Your task to perform on an android device: open app "Chime – Mobile Banking" (install if not already installed) Image 0: 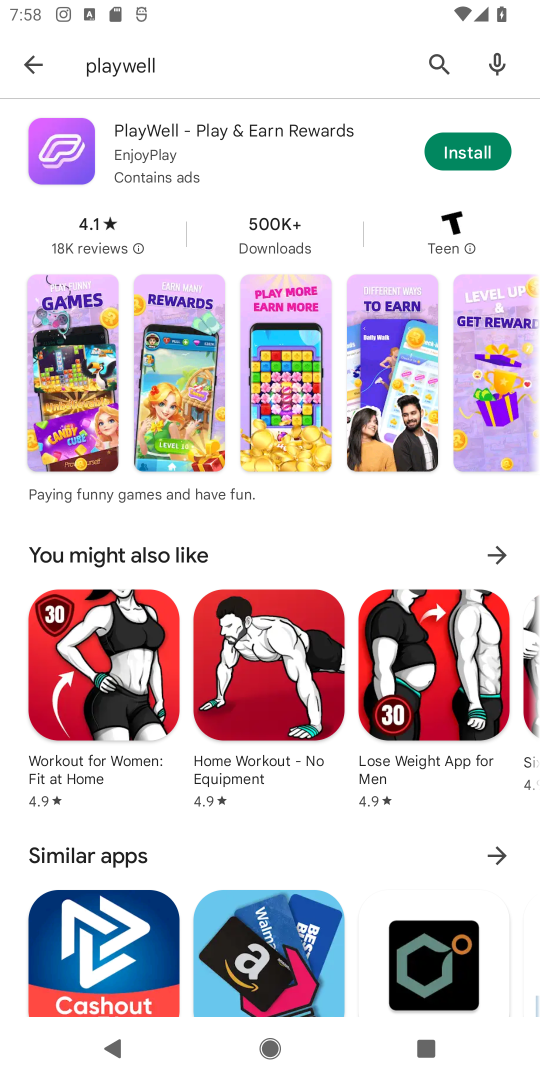
Step 0: click (300, 1051)
Your task to perform on an android device: open app "Chime – Mobile Banking" (install if not already installed) Image 1: 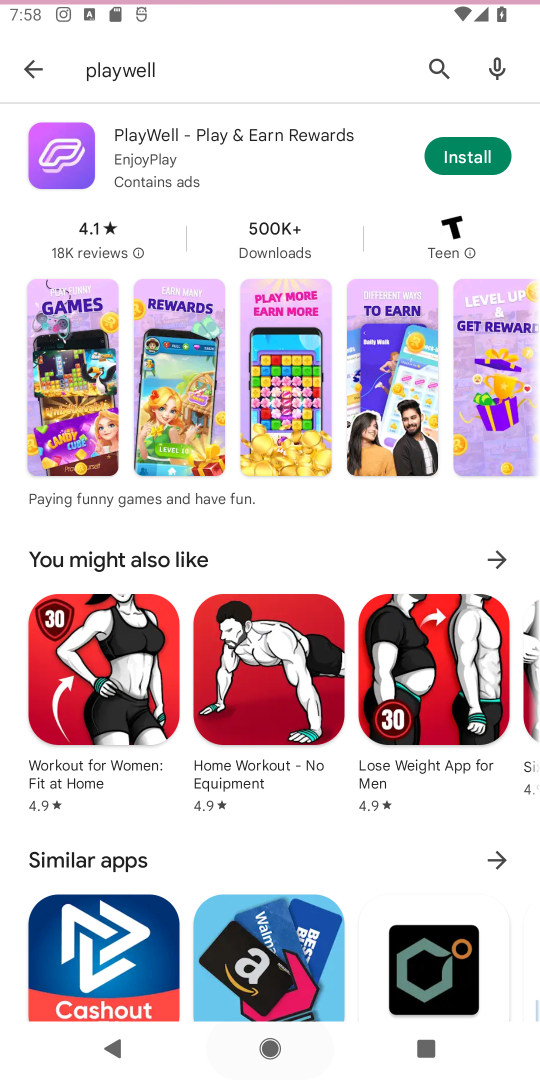
Step 1: click (436, 59)
Your task to perform on an android device: open app "Chime – Mobile Banking" (install if not already installed) Image 2: 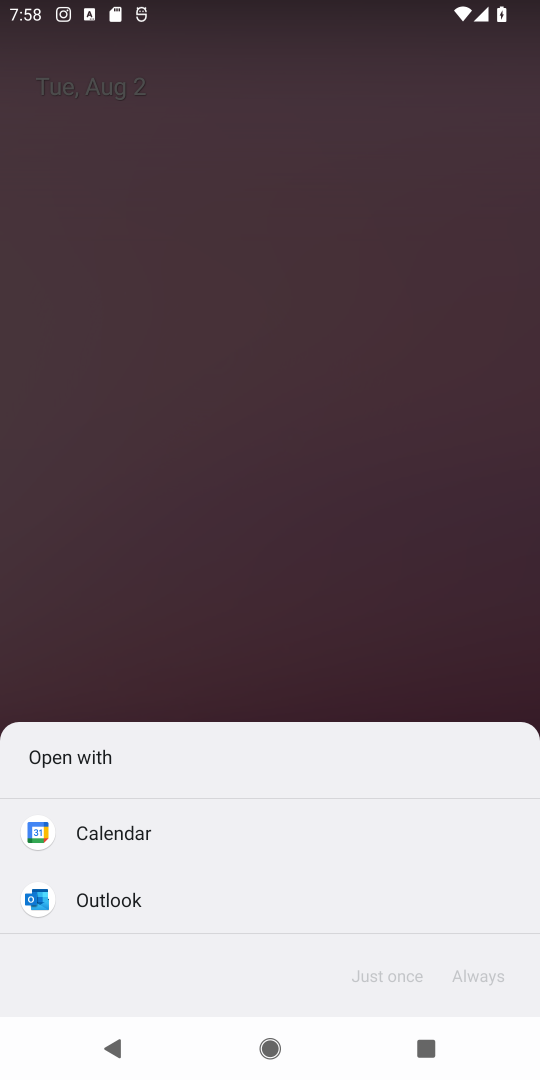
Step 2: click (211, 567)
Your task to perform on an android device: open app "Chime – Mobile Banking" (install if not already installed) Image 3: 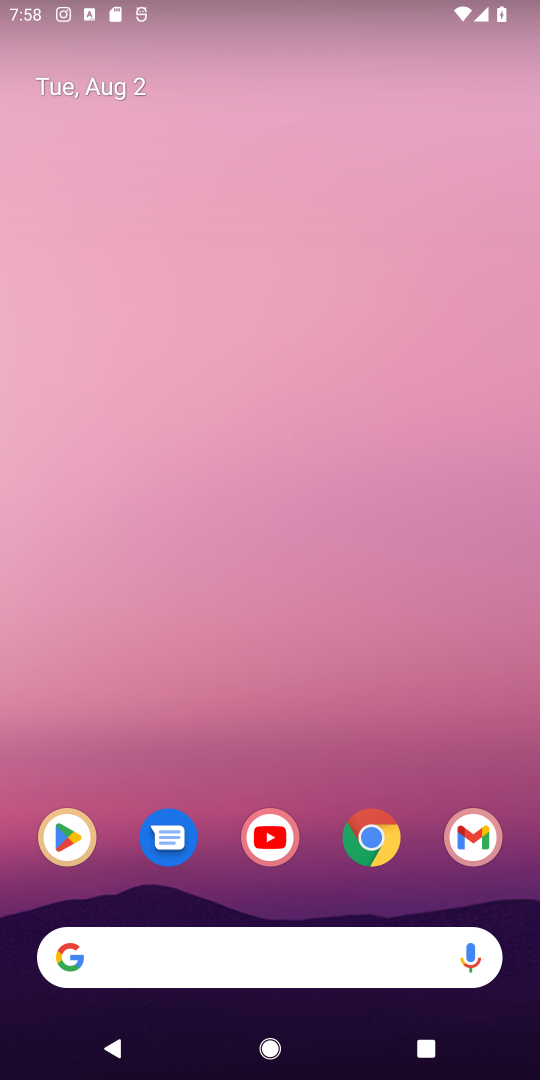
Step 3: click (78, 843)
Your task to perform on an android device: open app "Chime – Mobile Banking" (install if not already installed) Image 4: 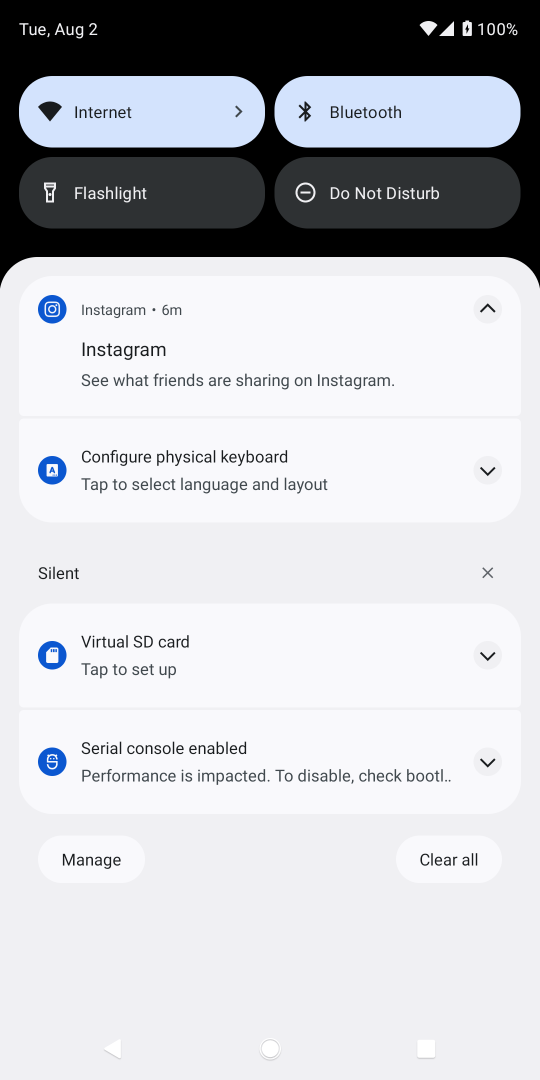
Step 4: press home button
Your task to perform on an android device: open app "Chime – Mobile Banking" (install if not already installed) Image 5: 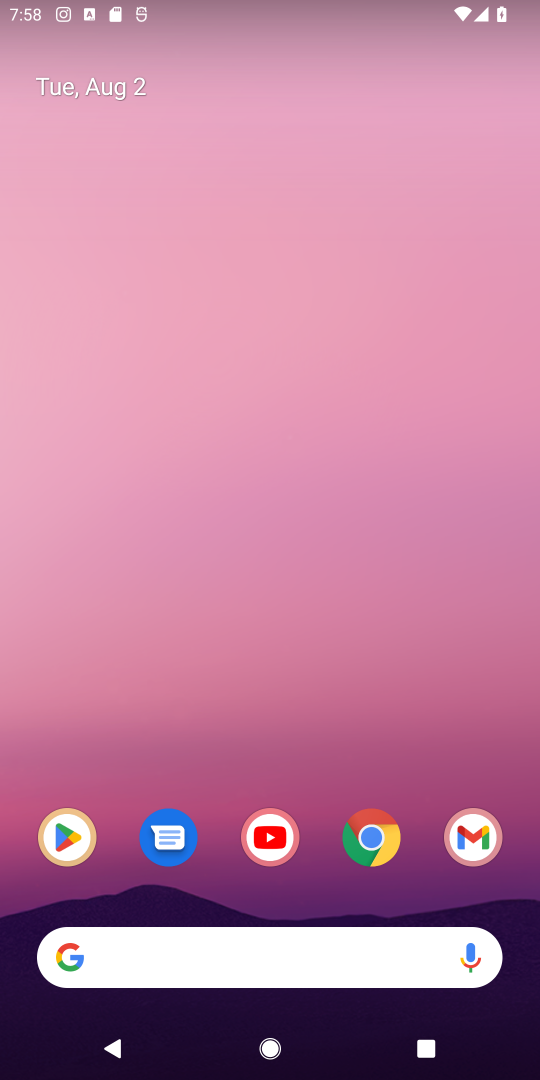
Step 5: click (65, 832)
Your task to perform on an android device: open app "Chime – Mobile Banking" (install if not already installed) Image 6: 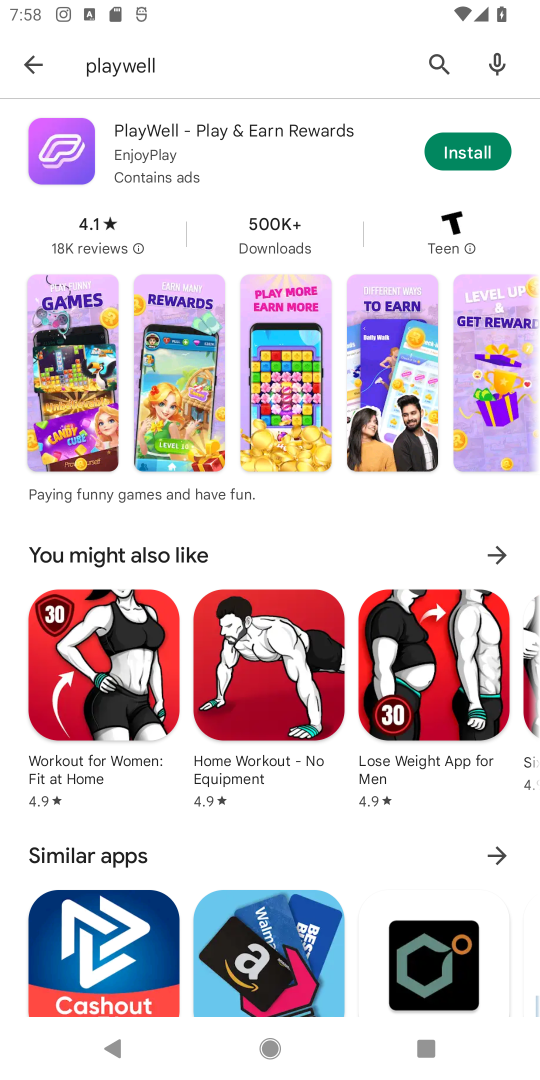
Step 6: click (429, 81)
Your task to perform on an android device: open app "Chime – Mobile Banking" (install if not already installed) Image 7: 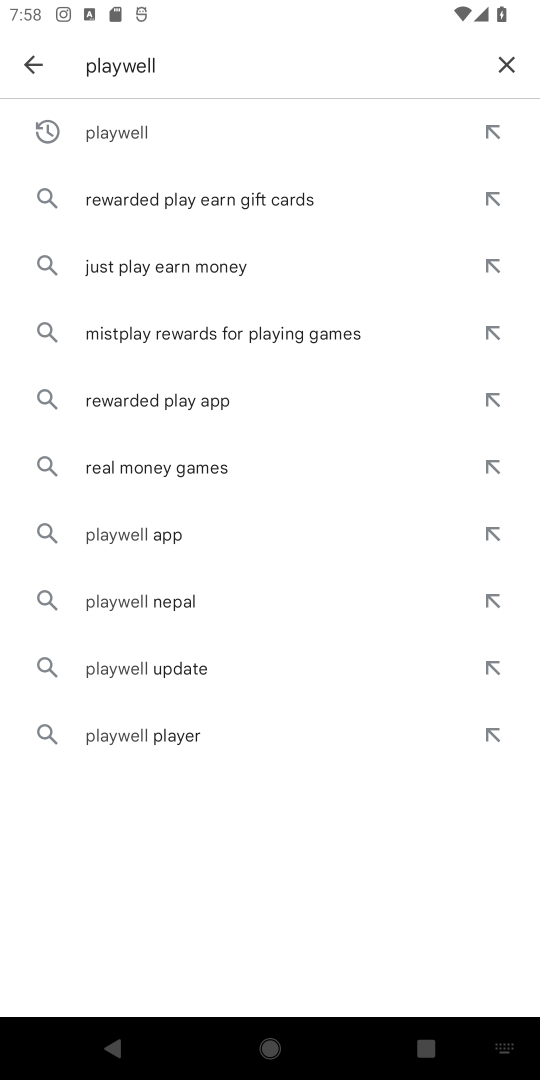
Step 7: click (494, 61)
Your task to perform on an android device: open app "Chime – Mobile Banking" (install if not already installed) Image 8: 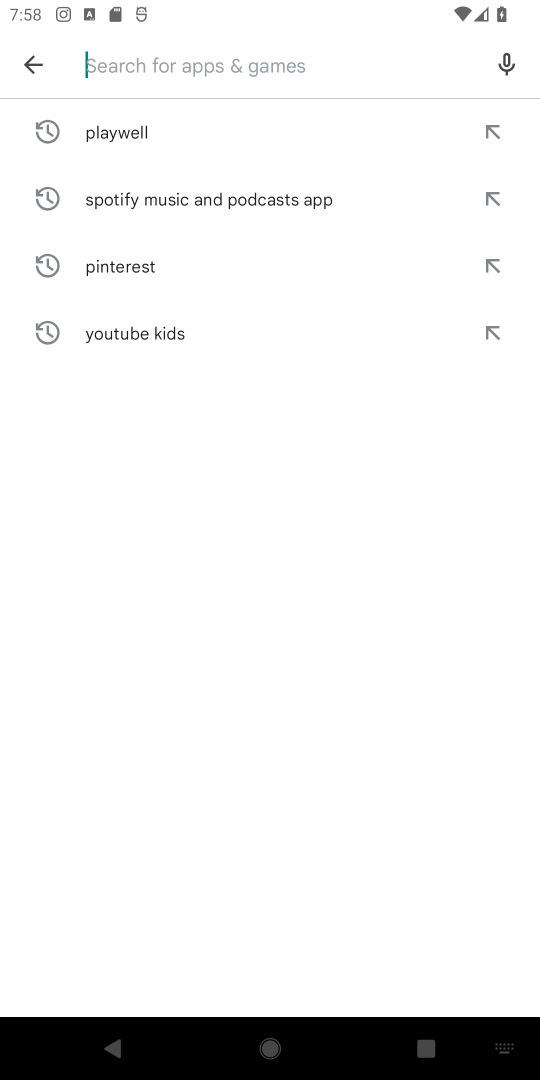
Step 8: type "Chime Mobile Banking"
Your task to perform on an android device: open app "Chime – Mobile Banking" (install if not already installed) Image 9: 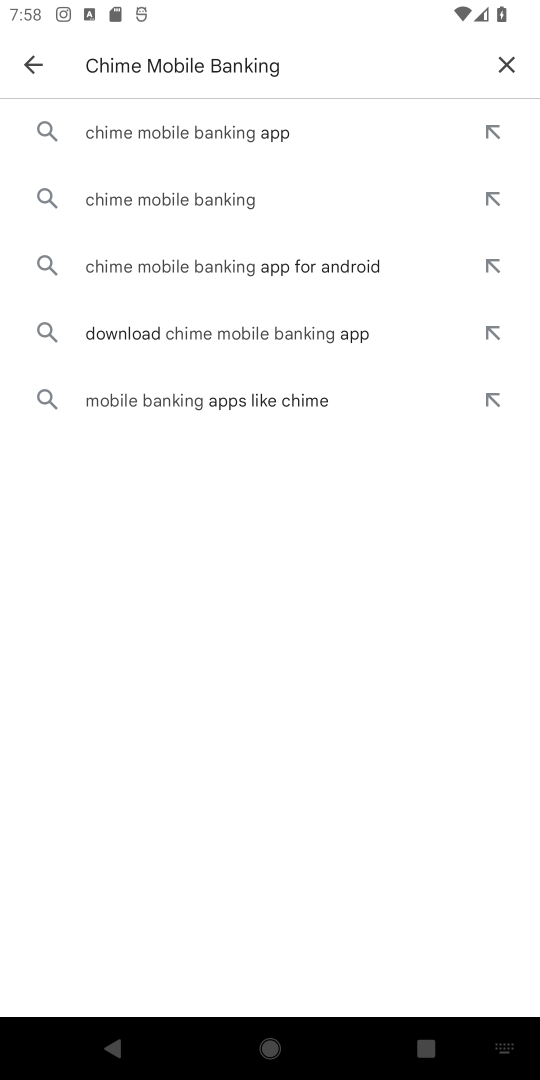
Step 9: click (231, 141)
Your task to perform on an android device: open app "Chime – Mobile Banking" (install if not already installed) Image 10: 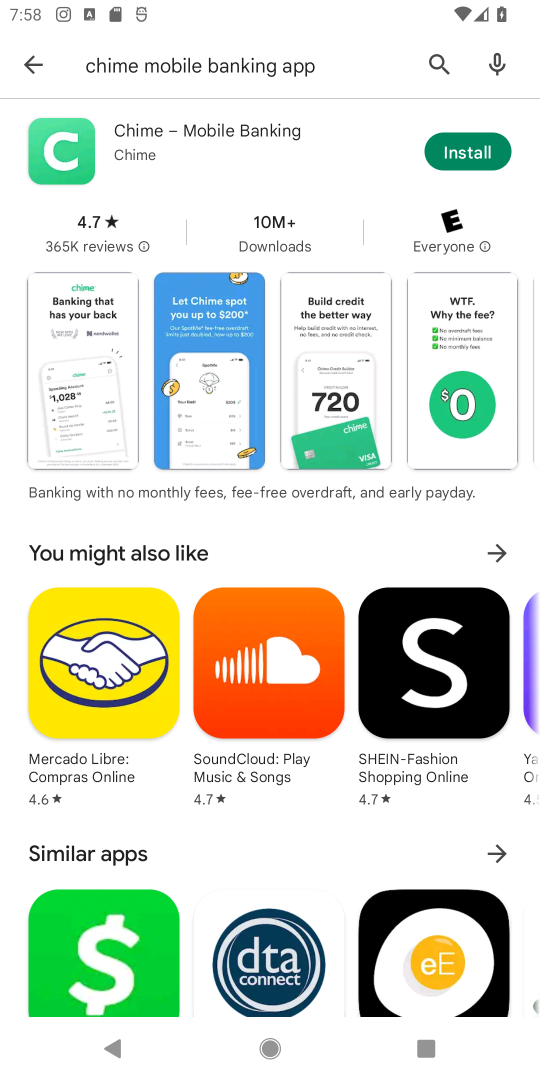
Step 10: click (470, 159)
Your task to perform on an android device: open app "Chime – Mobile Banking" (install if not already installed) Image 11: 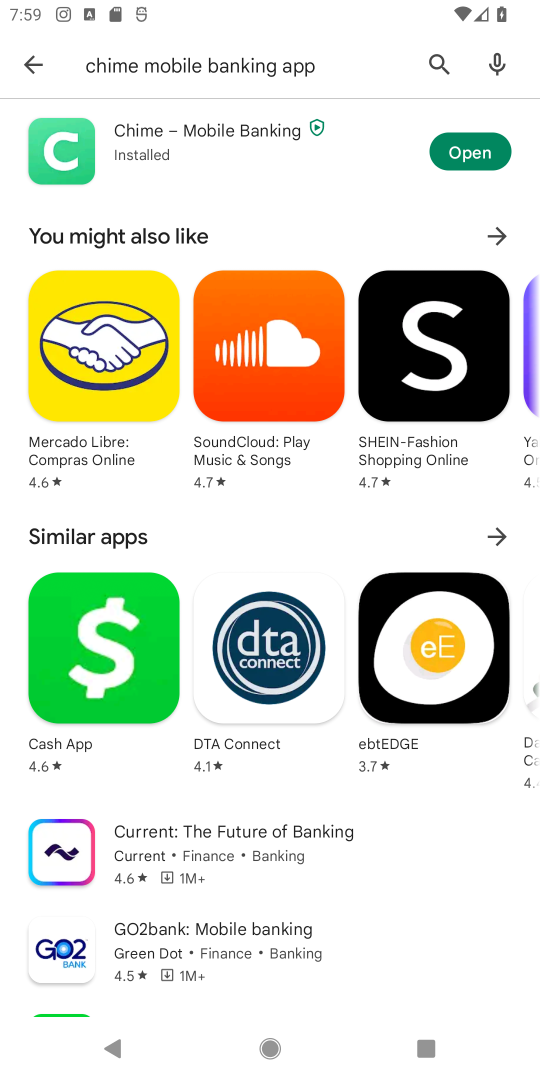
Step 11: click (483, 154)
Your task to perform on an android device: open app "Chime – Mobile Banking" (install if not already installed) Image 12: 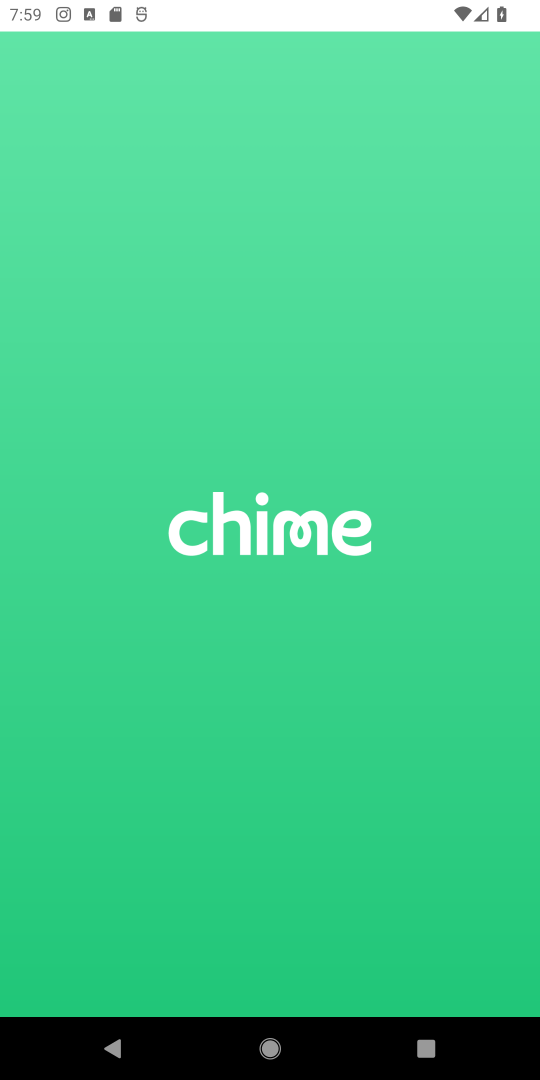
Step 12: task complete